Your task to perform on an android device: Open Google Image 0: 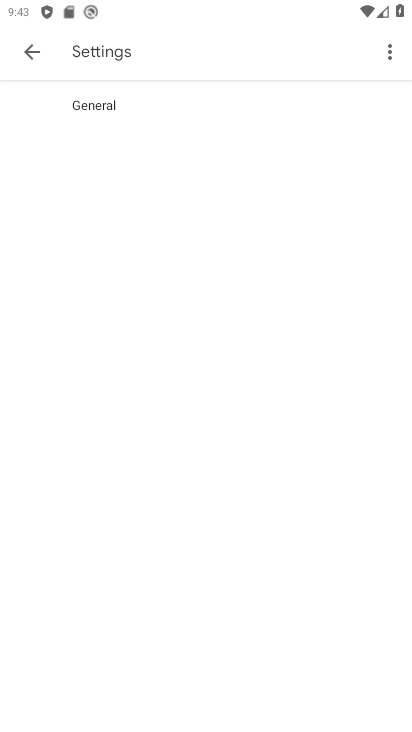
Step 0: press back button
Your task to perform on an android device: Open Google Image 1: 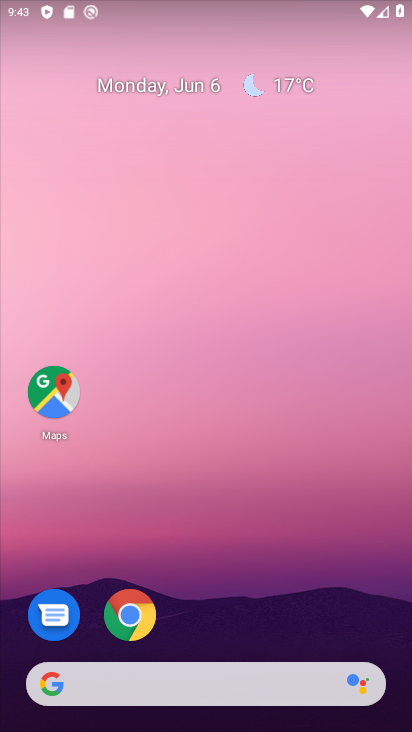
Step 1: drag from (229, 566) to (315, 18)
Your task to perform on an android device: Open Google Image 2: 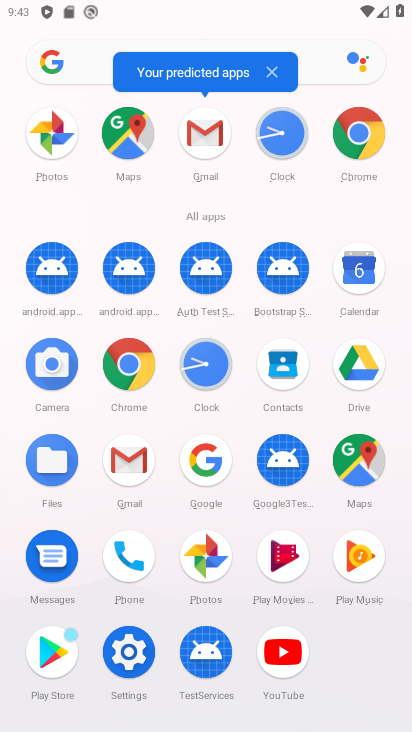
Step 2: click (216, 454)
Your task to perform on an android device: Open Google Image 3: 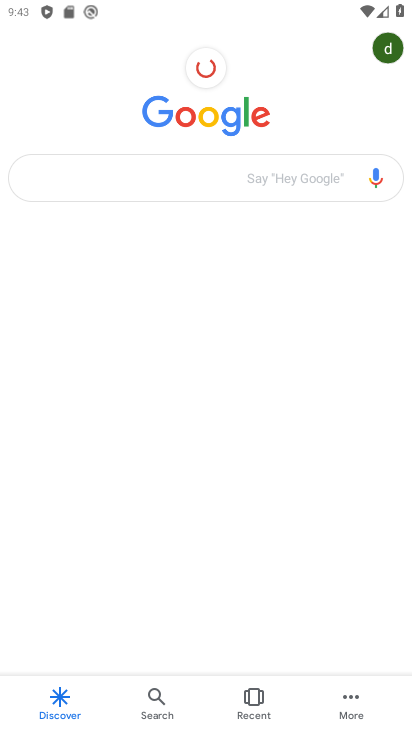
Step 3: task complete